Your task to perform on an android device: open app "Firefox Browser" (install if not already installed) and go to login screen Image 0: 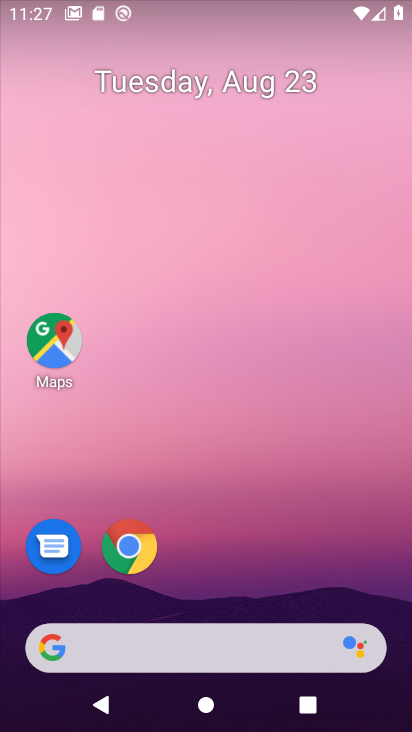
Step 0: drag from (215, 614) to (208, 217)
Your task to perform on an android device: open app "Firefox Browser" (install if not already installed) and go to login screen Image 1: 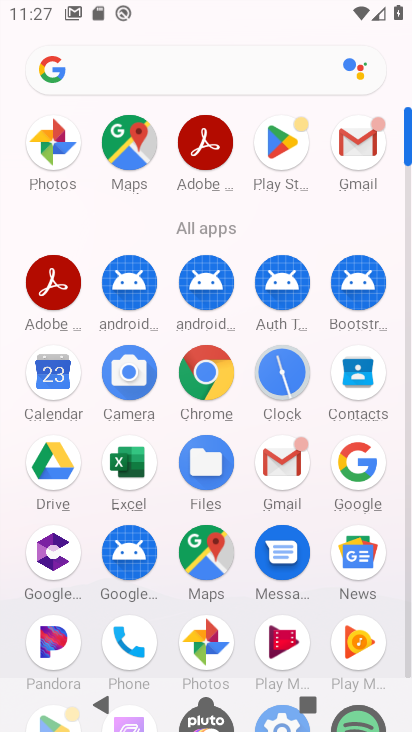
Step 1: click (270, 131)
Your task to perform on an android device: open app "Firefox Browser" (install if not already installed) and go to login screen Image 2: 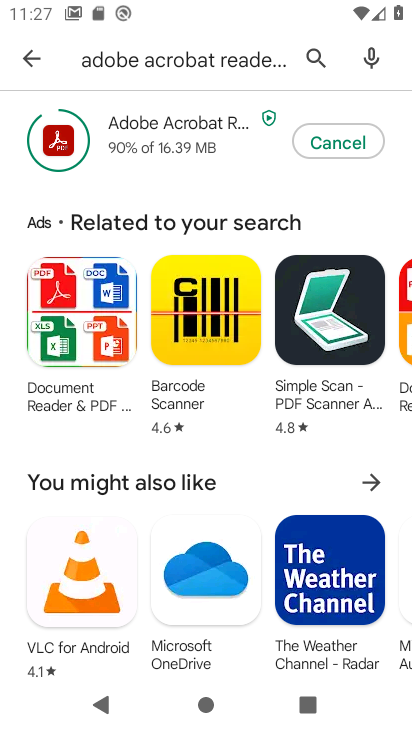
Step 2: click (39, 59)
Your task to perform on an android device: open app "Firefox Browser" (install if not already installed) and go to login screen Image 3: 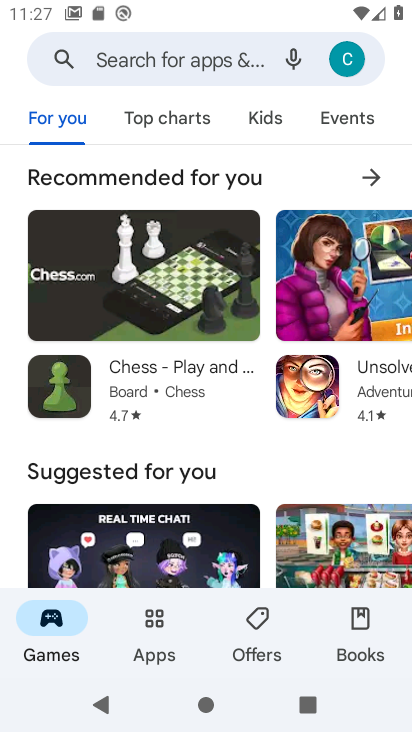
Step 3: click (116, 48)
Your task to perform on an android device: open app "Firefox Browser" (install if not already installed) and go to login screen Image 4: 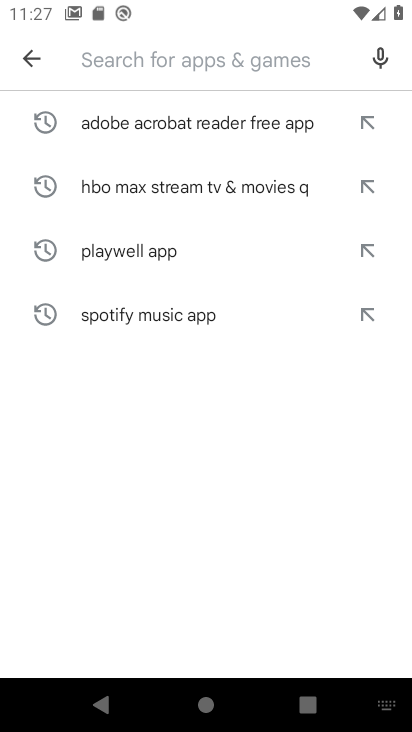
Step 4: type "Firefox Browser "
Your task to perform on an android device: open app "Firefox Browser" (install if not already installed) and go to login screen Image 5: 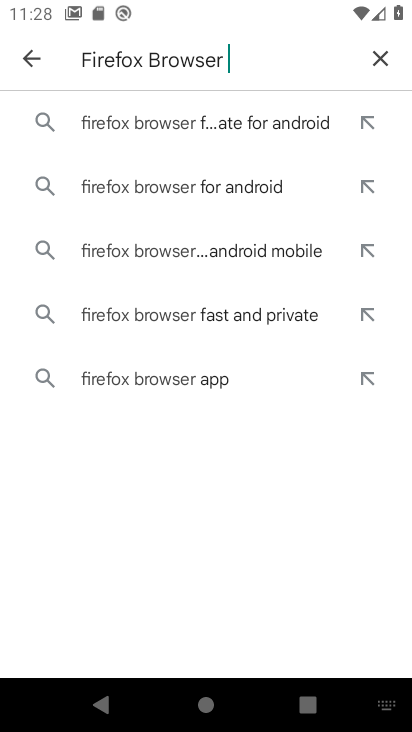
Step 5: click (208, 131)
Your task to perform on an android device: open app "Firefox Browser" (install if not already installed) and go to login screen Image 6: 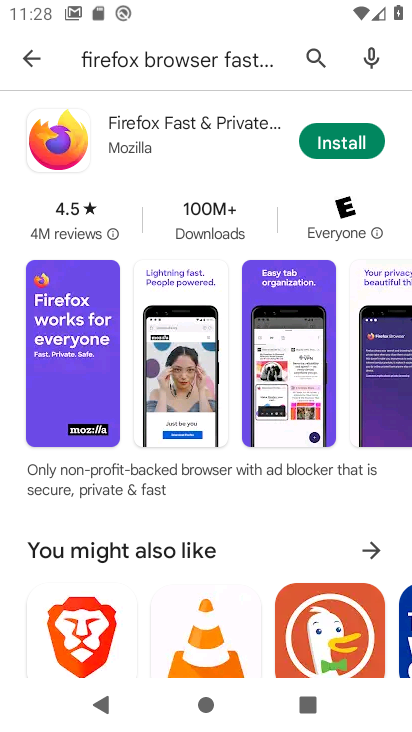
Step 6: click (346, 144)
Your task to perform on an android device: open app "Firefox Browser" (install if not already installed) and go to login screen Image 7: 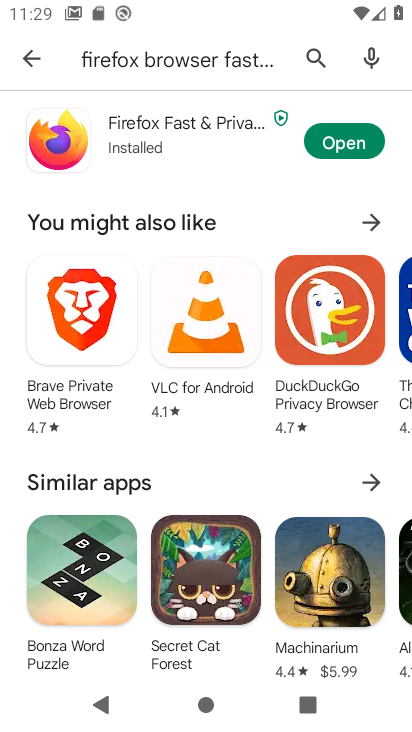
Step 7: task complete